Your task to perform on an android device: Clear the cart on target. Add apple airpods to the cart on target, then select checkout. Image 0: 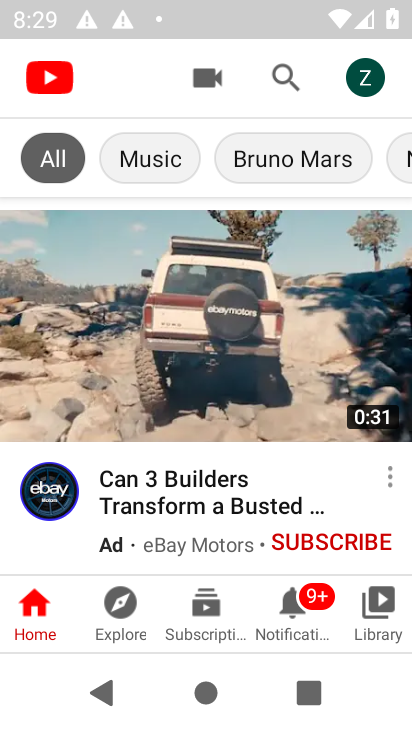
Step 0: press home button
Your task to perform on an android device: Clear the cart on target. Add apple airpods to the cart on target, then select checkout. Image 1: 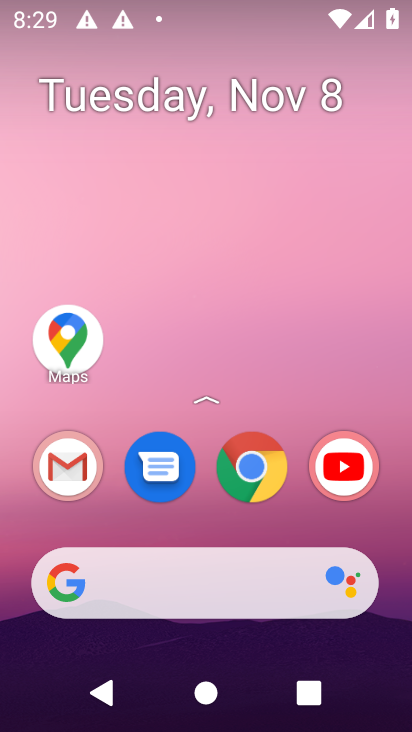
Step 1: click (261, 586)
Your task to perform on an android device: Clear the cart on target. Add apple airpods to the cart on target, then select checkout. Image 2: 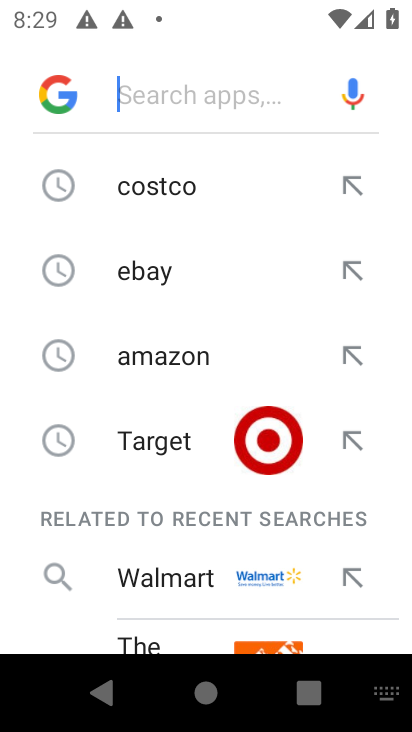
Step 2: click (191, 452)
Your task to perform on an android device: Clear the cart on target. Add apple airpods to the cart on target, then select checkout. Image 3: 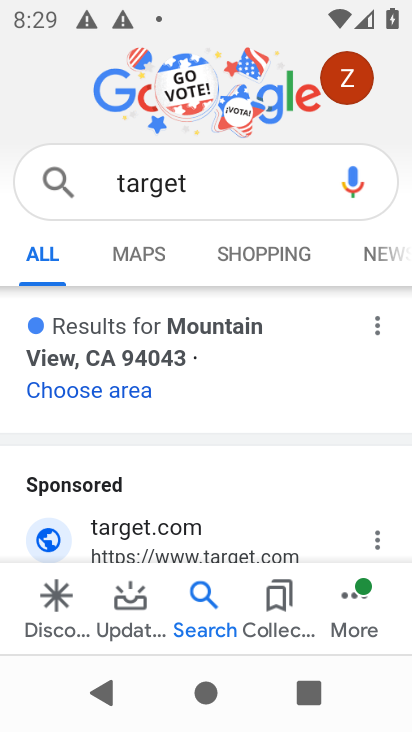
Step 3: click (111, 534)
Your task to perform on an android device: Clear the cart on target. Add apple airpods to the cart on target, then select checkout. Image 4: 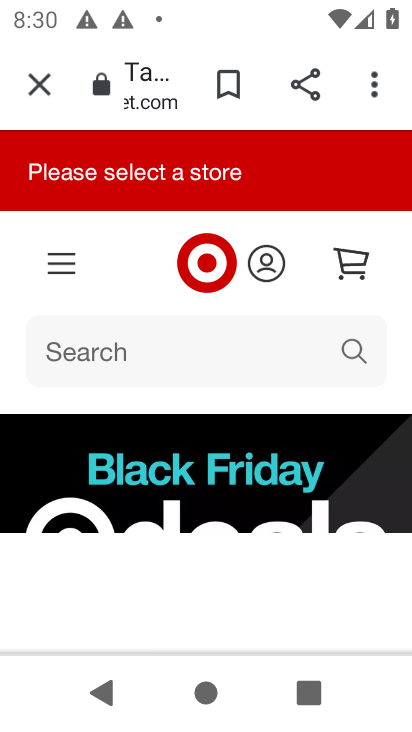
Step 4: click (178, 326)
Your task to perform on an android device: Clear the cart on target. Add apple airpods to the cart on target, then select checkout. Image 5: 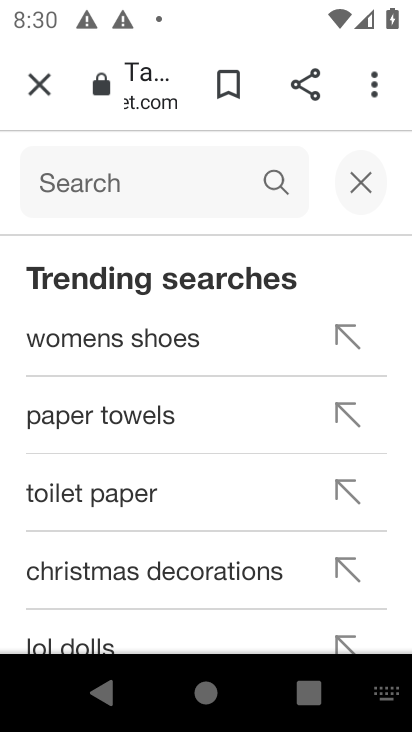
Step 5: type "apple airpod"
Your task to perform on an android device: Clear the cart on target. Add apple airpods to the cart on target, then select checkout. Image 6: 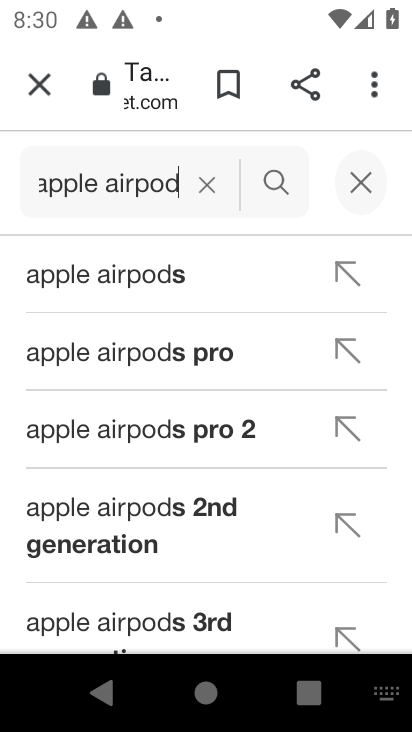
Step 6: click (193, 281)
Your task to perform on an android device: Clear the cart on target. Add apple airpods to the cart on target, then select checkout. Image 7: 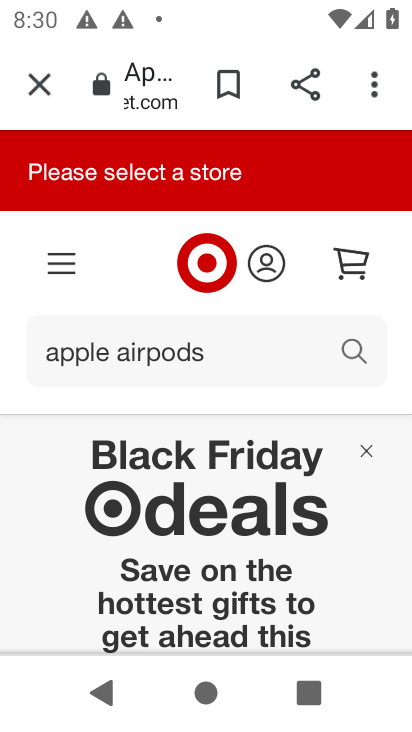
Step 7: task complete